Your task to perform on an android device: change the upload size in google photos Image 0: 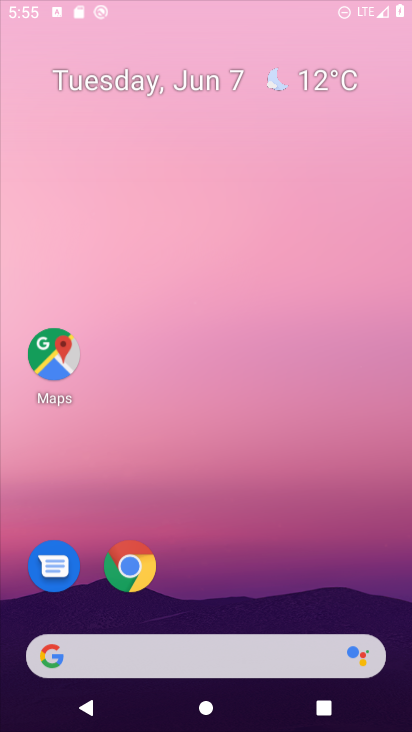
Step 0: click (320, 13)
Your task to perform on an android device: change the upload size in google photos Image 1: 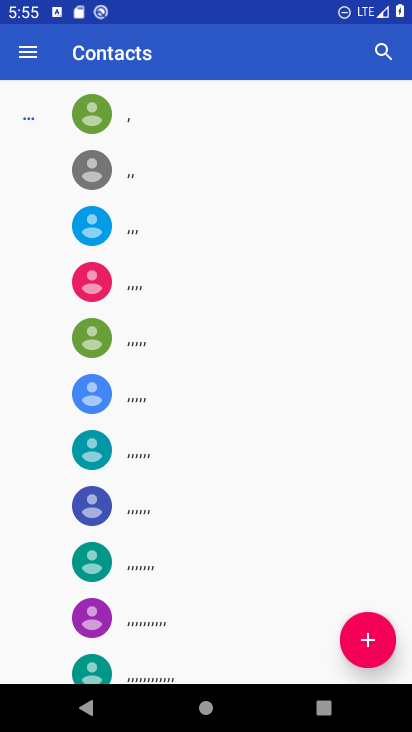
Step 1: press home button
Your task to perform on an android device: change the upload size in google photos Image 2: 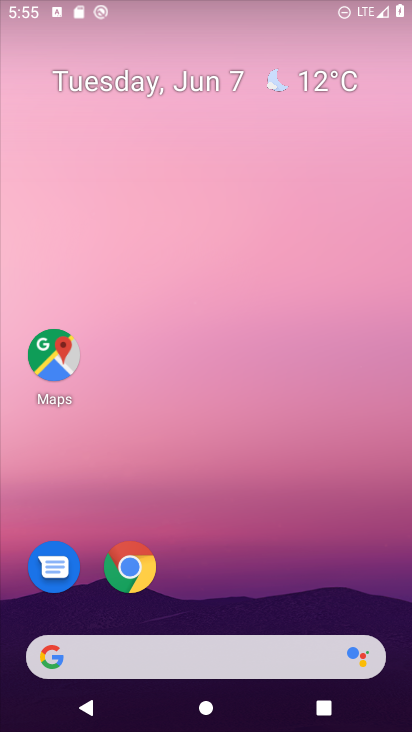
Step 2: drag from (190, 647) to (243, 19)
Your task to perform on an android device: change the upload size in google photos Image 3: 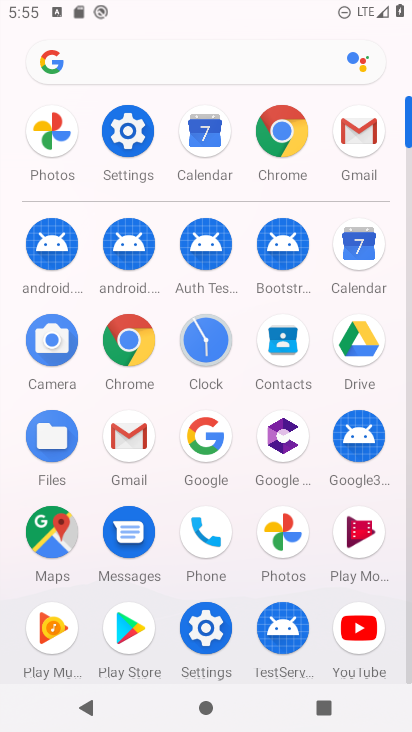
Step 3: click (277, 533)
Your task to perform on an android device: change the upload size in google photos Image 4: 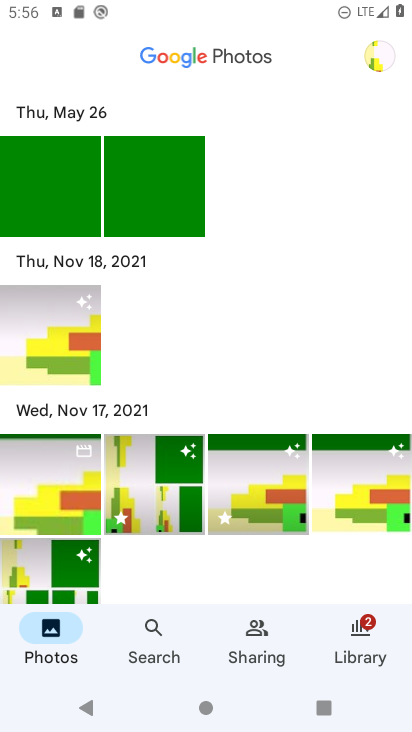
Step 4: click (374, 53)
Your task to perform on an android device: change the upload size in google photos Image 5: 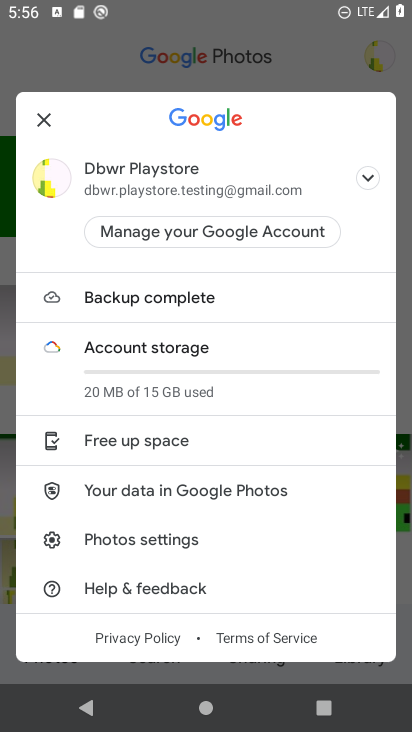
Step 5: click (178, 304)
Your task to perform on an android device: change the upload size in google photos Image 6: 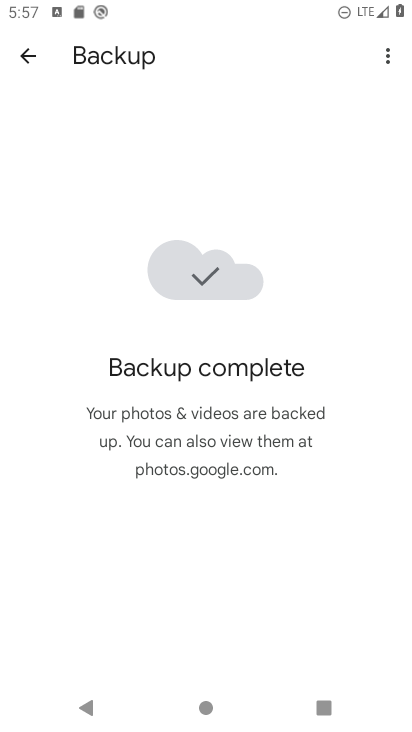
Step 6: click (388, 52)
Your task to perform on an android device: change the upload size in google photos Image 7: 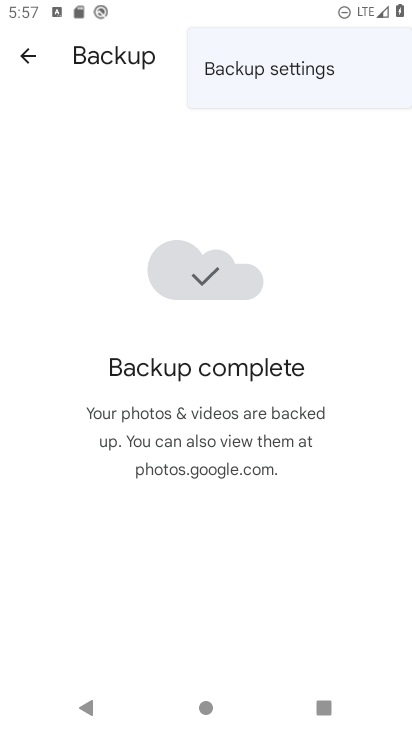
Step 7: click (303, 72)
Your task to perform on an android device: change the upload size in google photos Image 8: 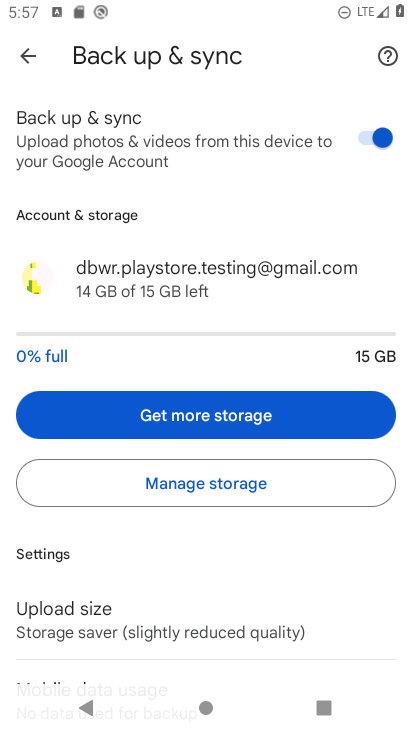
Step 8: drag from (225, 636) to (246, 478)
Your task to perform on an android device: change the upload size in google photos Image 9: 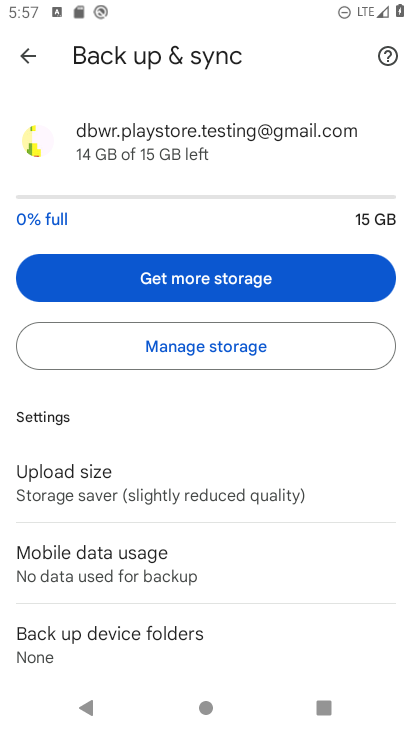
Step 9: click (180, 485)
Your task to perform on an android device: change the upload size in google photos Image 10: 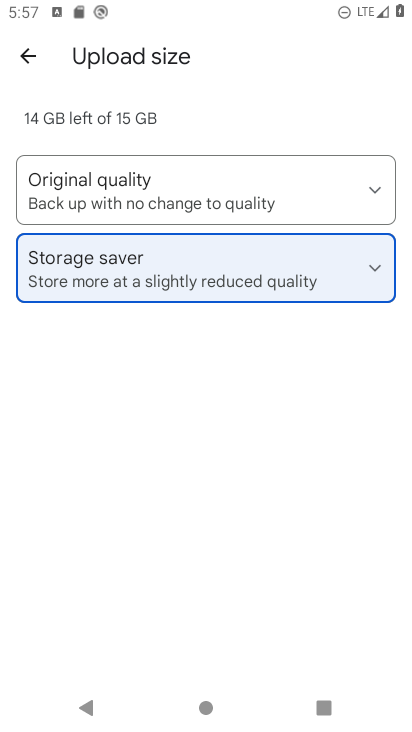
Step 10: click (285, 187)
Your task to perform on an android device: change the upload size in google photos Image 11: 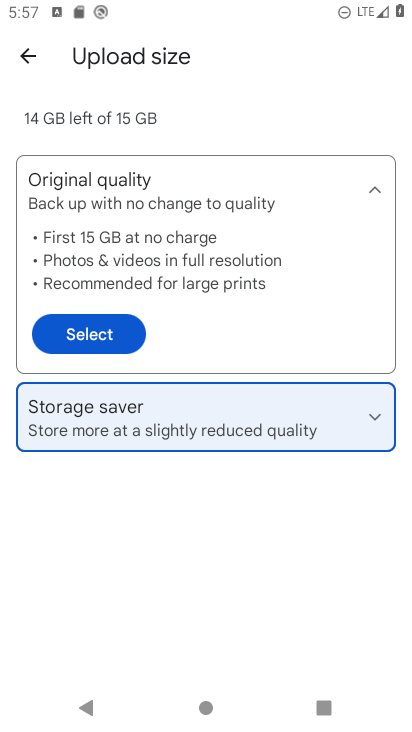
Step 11: click (90, 344)
Your task to perform on an android device: change the upload size in google photos Image 12: 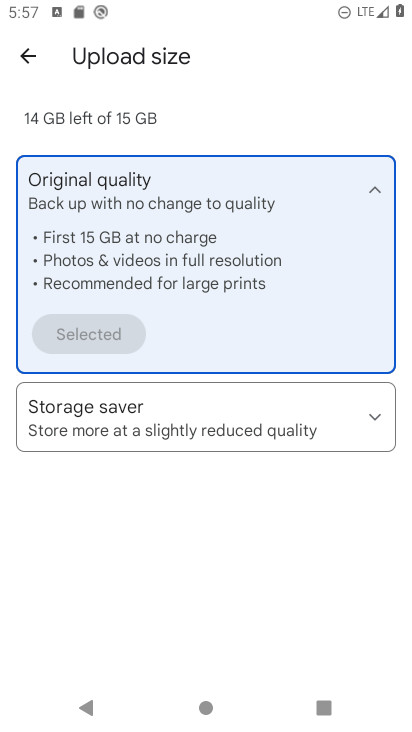
Step 12: task complete